Your task to perform on an android device: Search for the best rated book on Goodreads. Image 0: 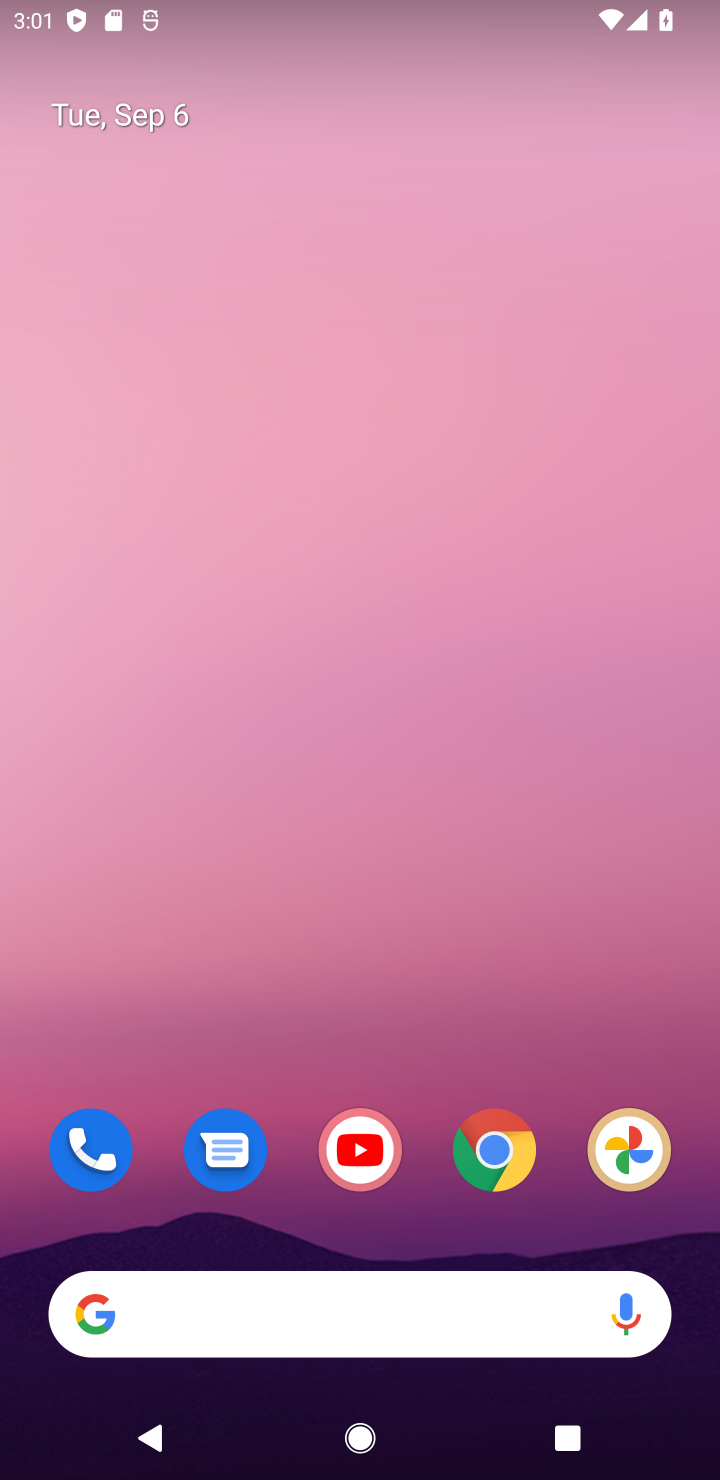
Step 0: click (484, 1144)
Your task to perform on an android device: Search for the best rated book on Goodreads. Image 1: 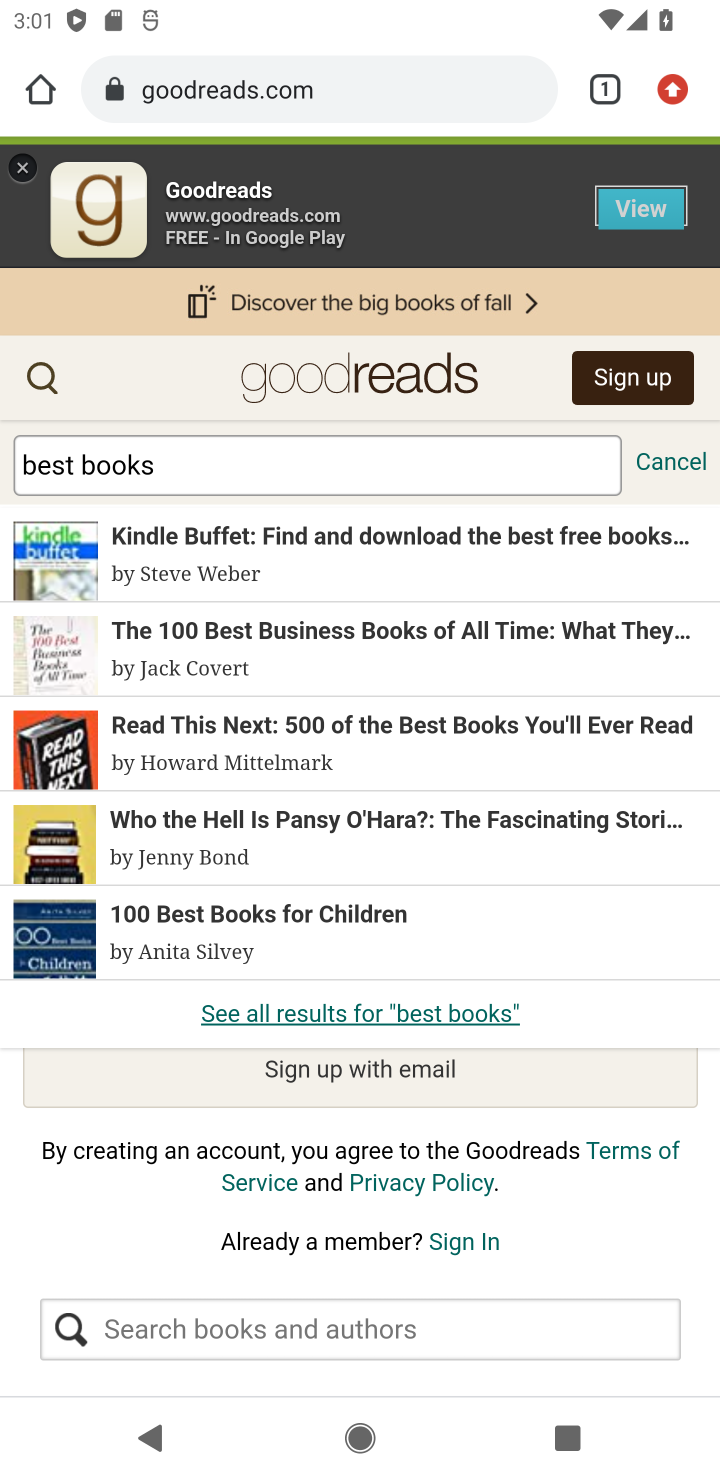
Step 1: click (167, 460)
Your task to perform on an android device: Search for the best rated book on Goodreads. Image 2: 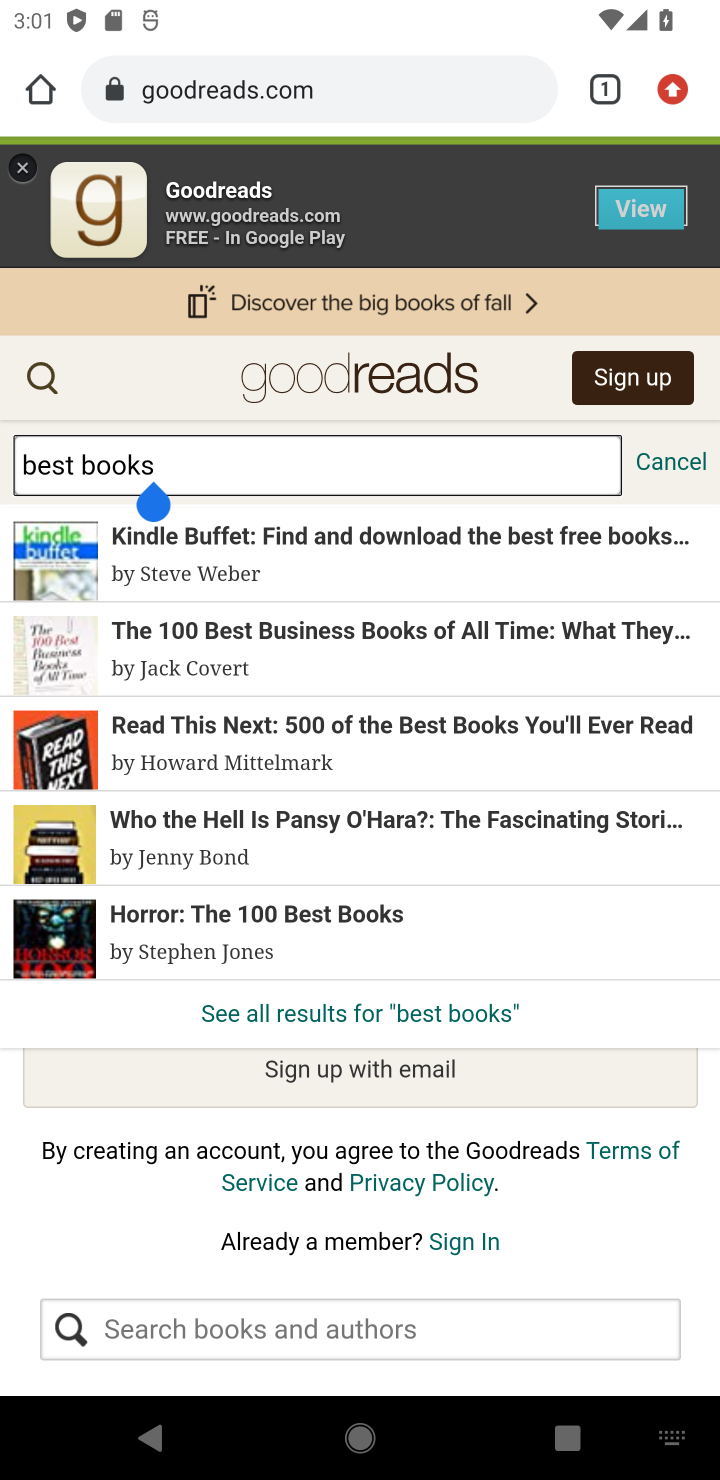
Step 2: click (642, 468)
Your task to perform on an android device: Search for the best rated book on Goodreads. Image 3: 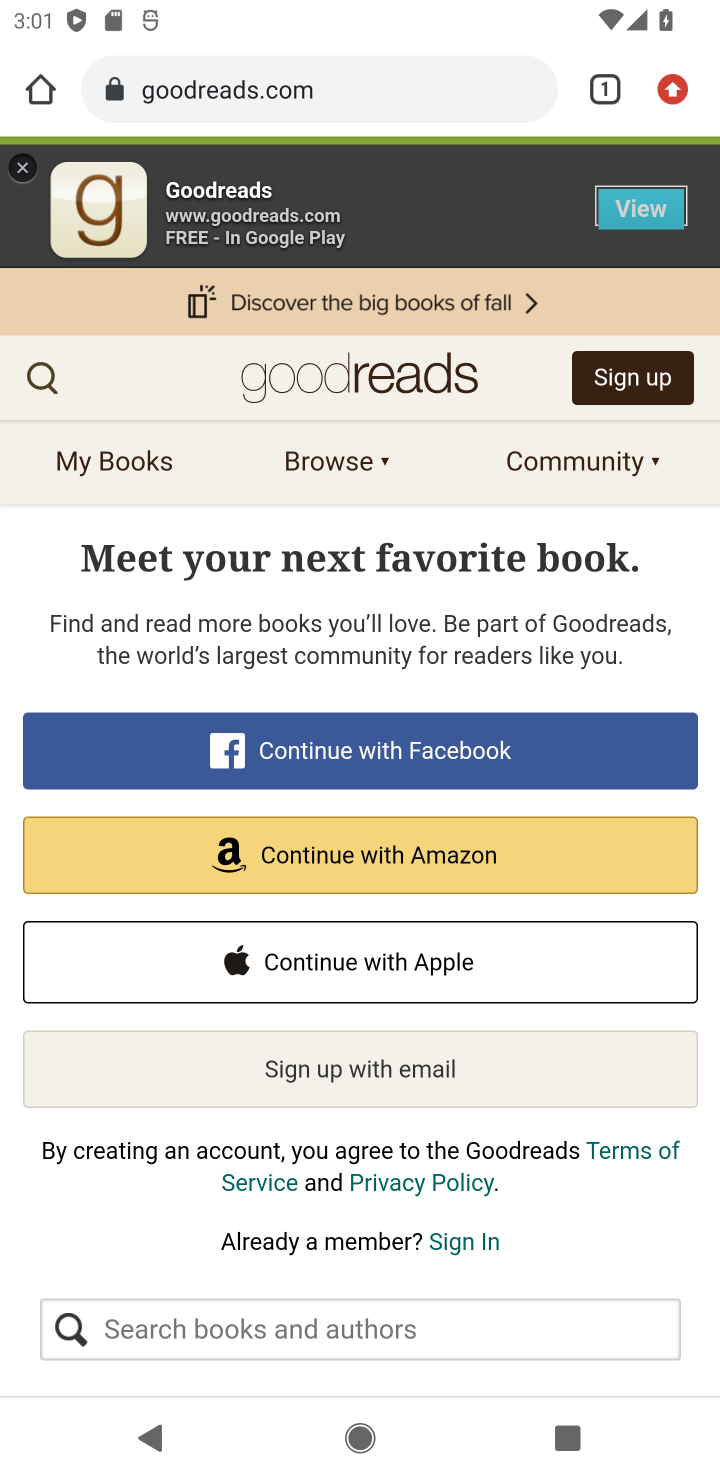
Step 3: click (53, 383)
Your task to perform on an android device: Search for the best rated book on Goodreads. Image 4: 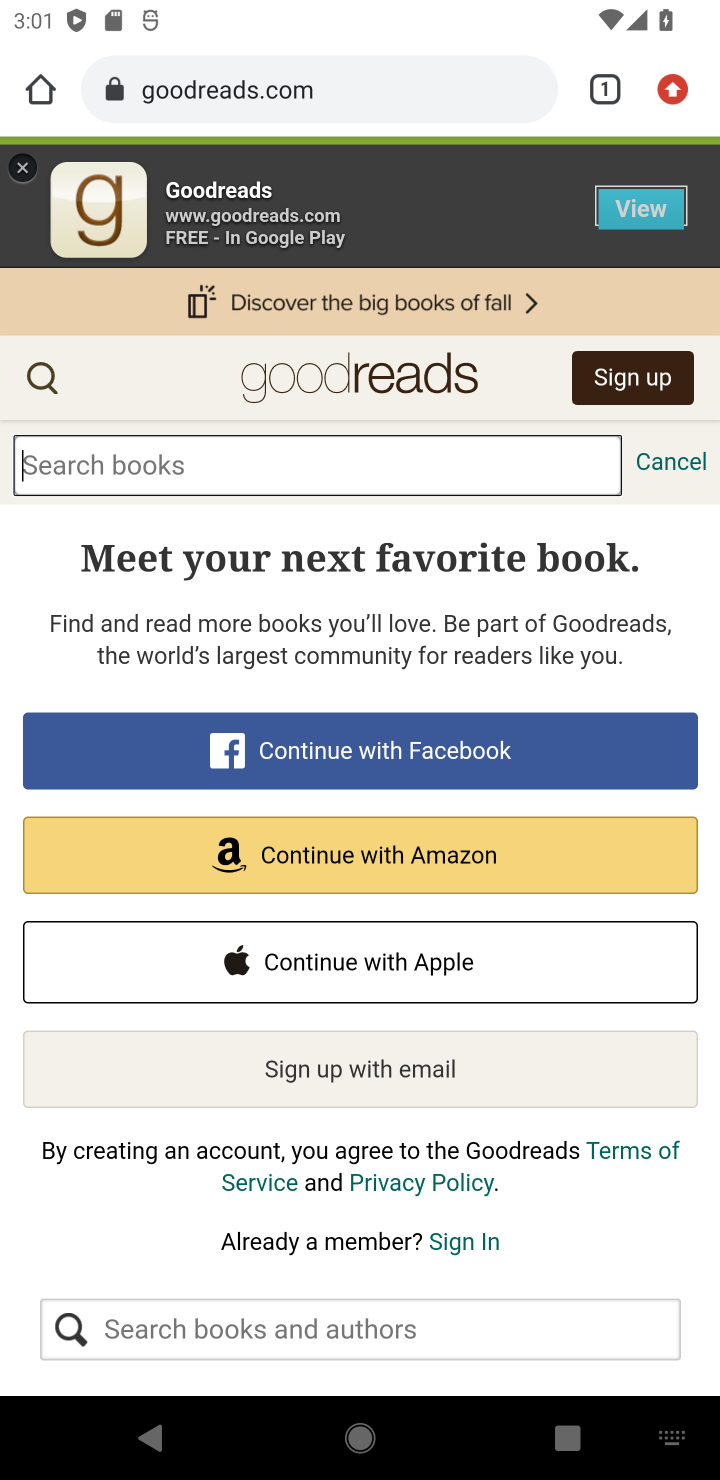
Step 4: click (138, 471)
Your task to perform on an android device: Search for the best rated book on Goodreads. Image 5: 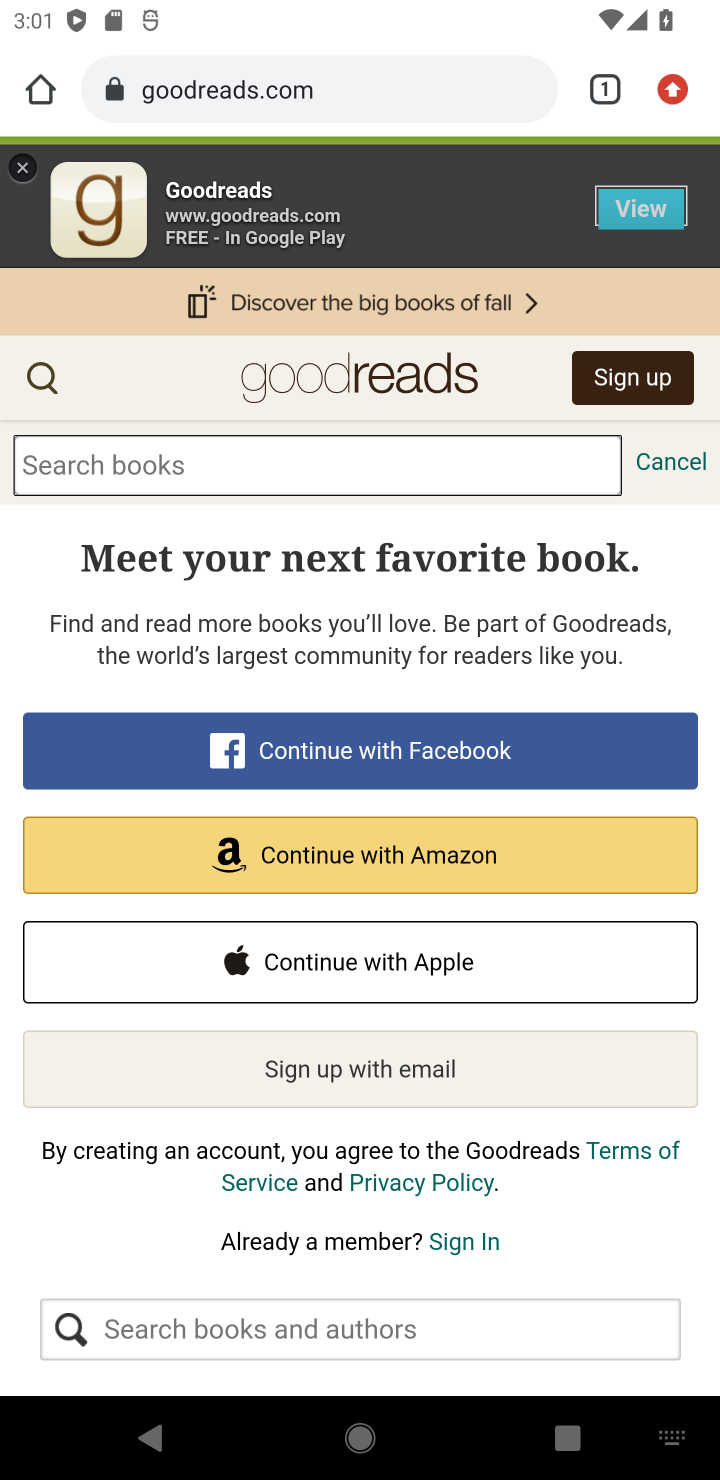
Step 5: type " best rated book"
Your task to perform on an android device: Search for the best rated book on Goodreads. Image 6: 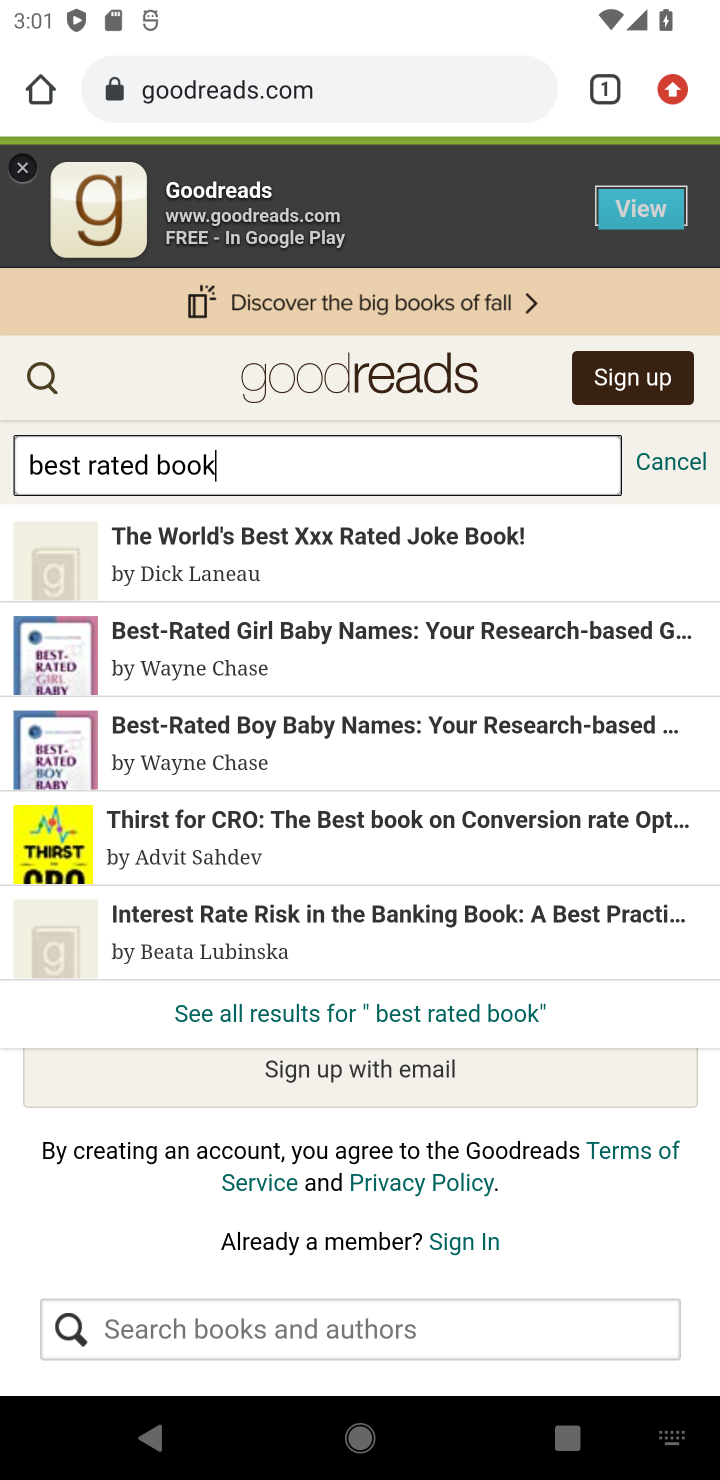
Step 6: task complete